Your task to perform on an android device: Open Google Chrome Image 0: 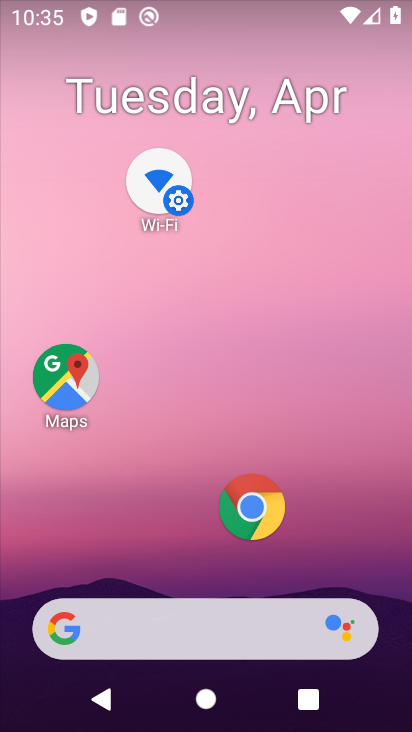
Step 0: click (250, 509)
Your task to perform on an android device: Open Google Chrome Image 1: 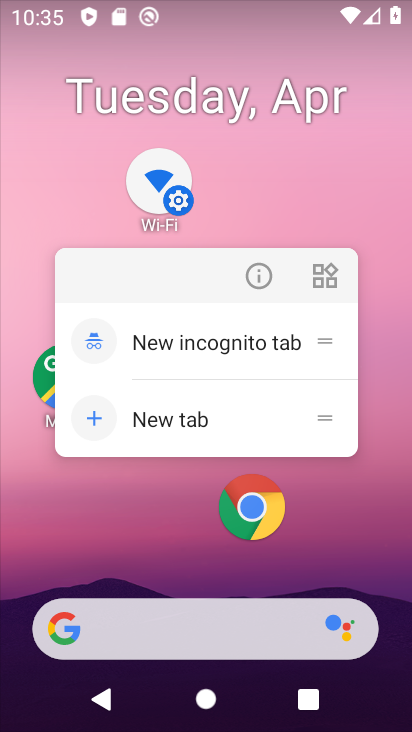
Step 1: click (249, 505)
Your task to perform on an android device: Open Google Chrome Image 2: 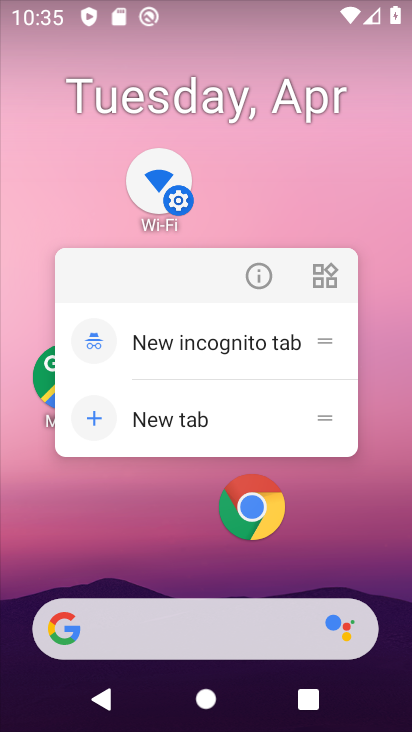
Step 2: click (249, 502)
Your task to perform on an android device: Open Google Chrome Image 3: 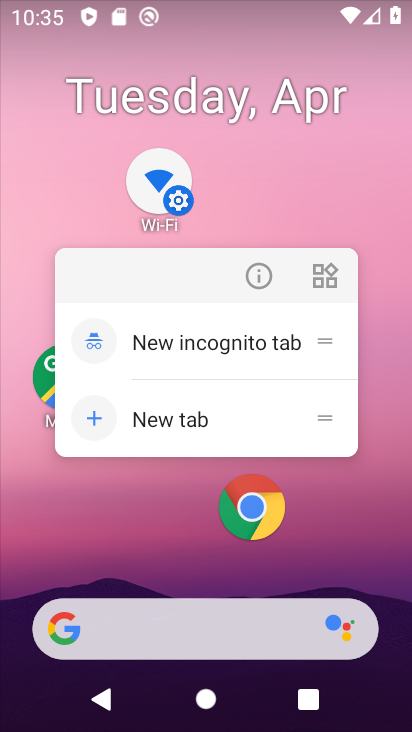
Step 3: click (249, 501)
Your task to perform on an android device: Open Google Chrome Image 4: 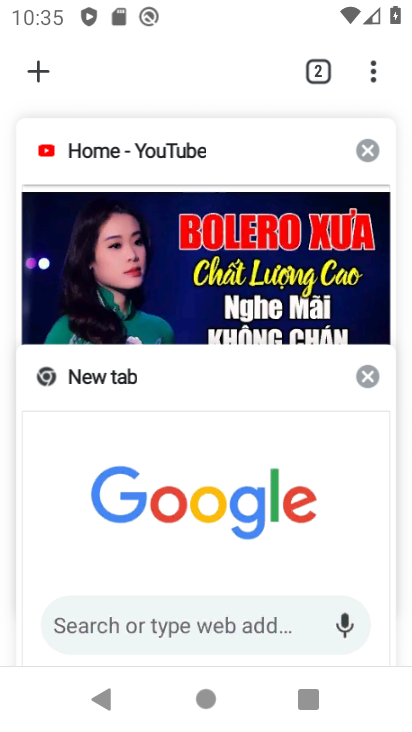
Step 4: task complete